Your task to perform on an android device: turn notification dots off Image 0: 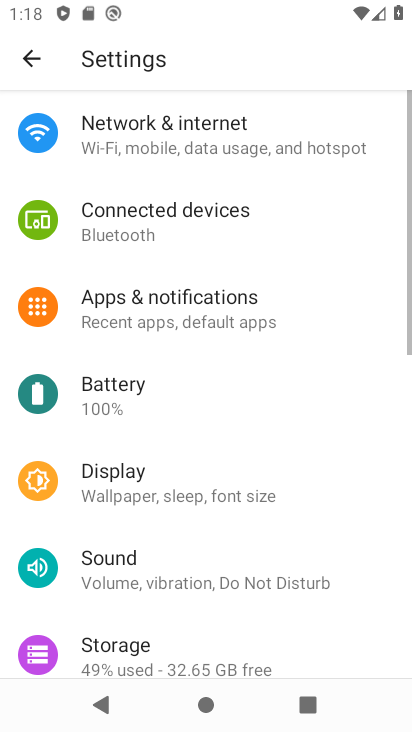
Step 0: drag from (331, 644) to (266, 705)
Your task to perform on an android device: turn notification dots off Image 1: 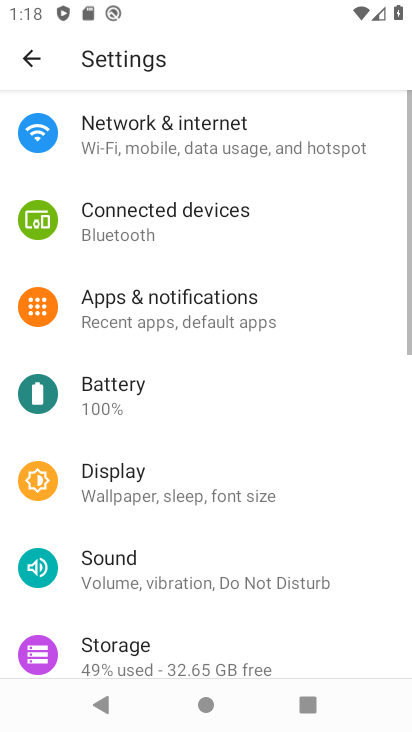
Step 1: click (242, 321)
Your task to perform on an android device: turn notification dots off Image 2: 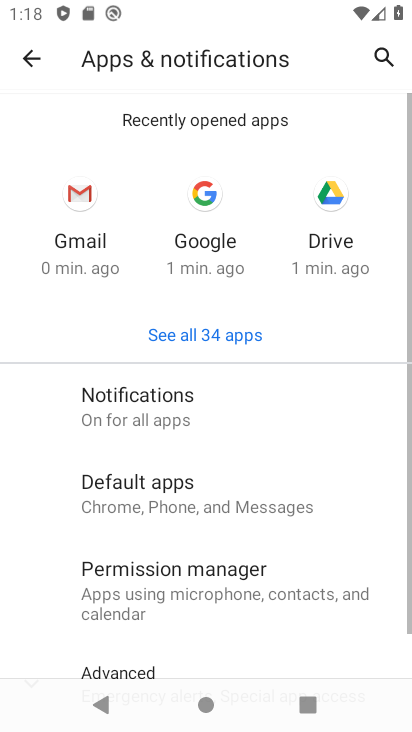
Step 2: click (191, 405)
Your task to perform on an android device: turn notification dots off Image 3: 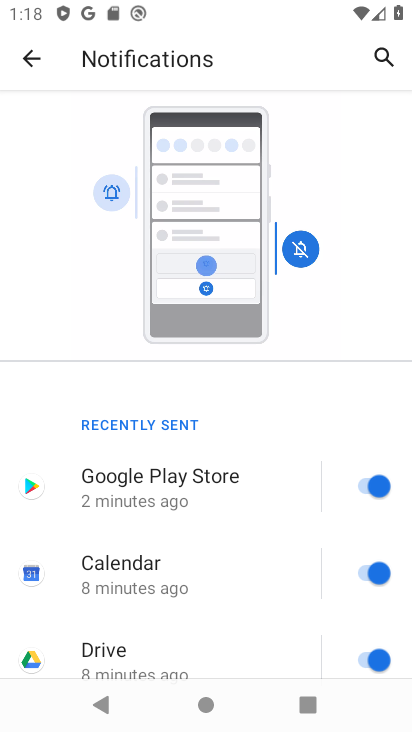
Step 3: drag from (186, 667) to (270, 71)
Your task to perform on an android device: turn notification dots off Image 4: 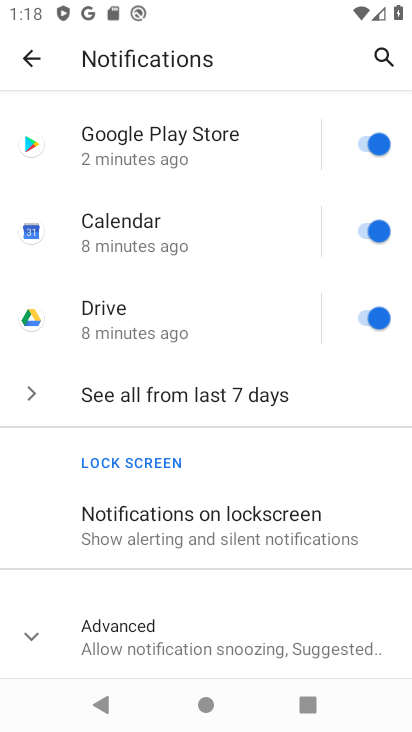
Step 4: click (207, 647)
Your task to perform on an android device: turn notification dots off Image 5: 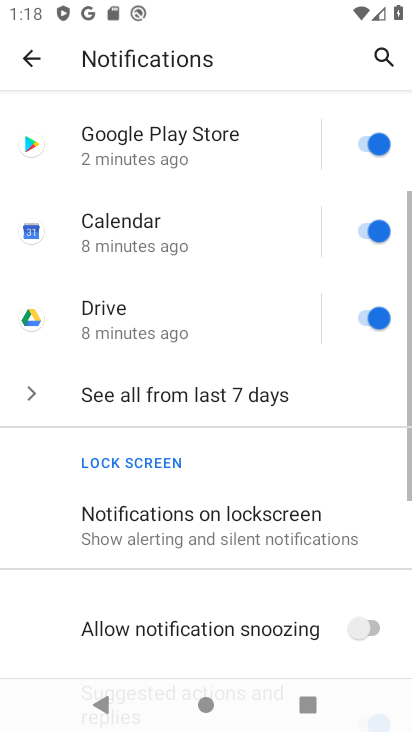
Step 5: drag from (208, 643) to (274, 110)
Your task to perform on an android device: turn notification dots off Image 6: 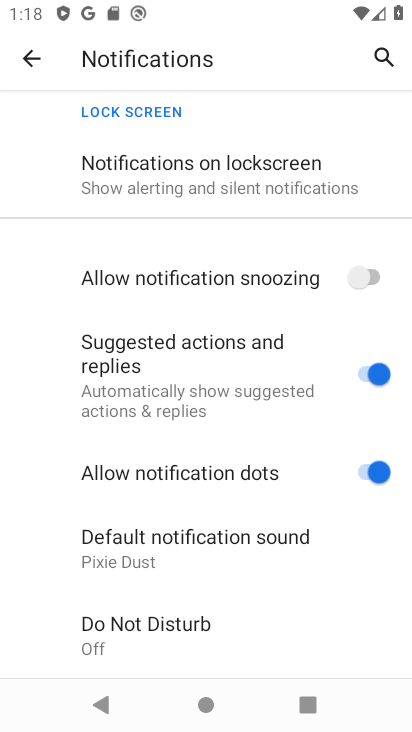
Step 6: click (369, 472)
Your task to perform on an android device: turn notification dots off Image 7: 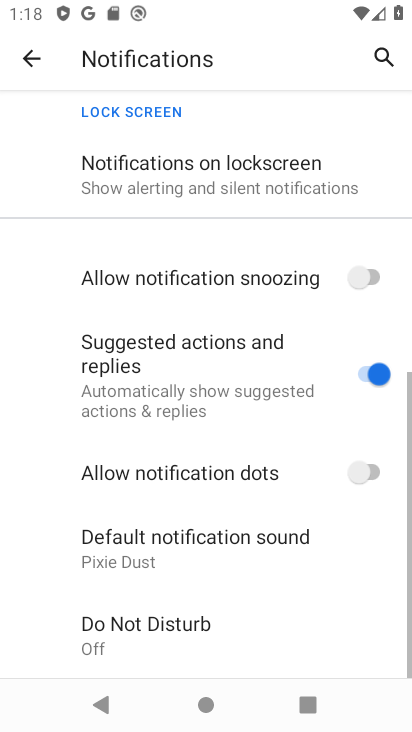
Step 7: task complete